Your task to perform on an android device: Go to display settings Image 0: 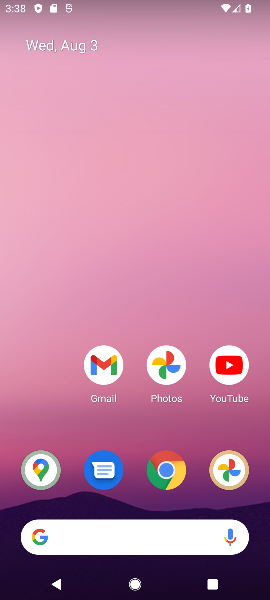
Step 0: press home button
Your task to perform on an android device: Go to display settings Image 1: 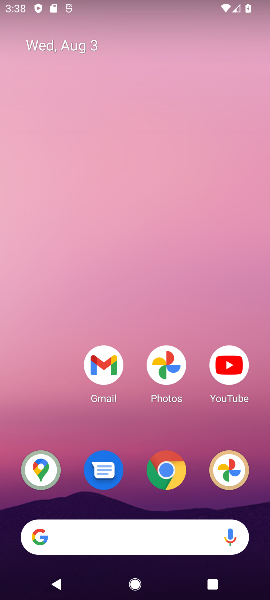
Step 1: drag from (202, 461) to (212, 69)
Your task to perform on an android device: Go to display settings Image 2: 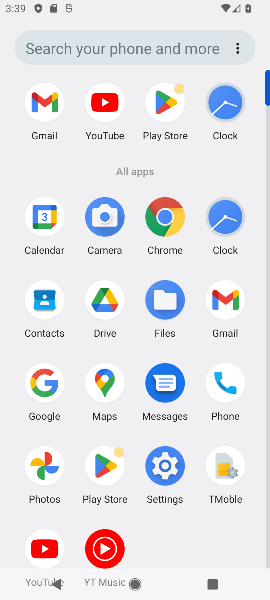
Step 2: click (174, 476)
Your task to perform on an android device: Go to display settings Image 3: 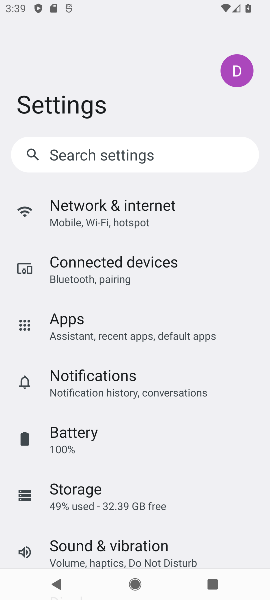
Step 3: drag from (120, 523) to (163, 229)
Your task to perform on an android device: Go to display settings Image 4: 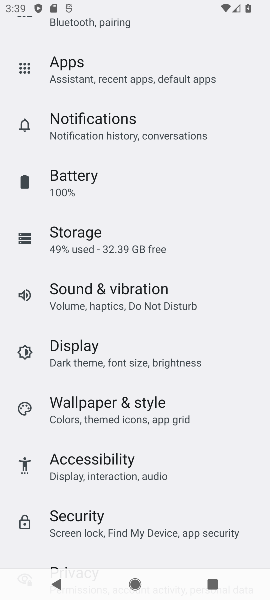
Step 4: click (123, 354)
Your task to perform on an android device: Go to display settings Image 5: 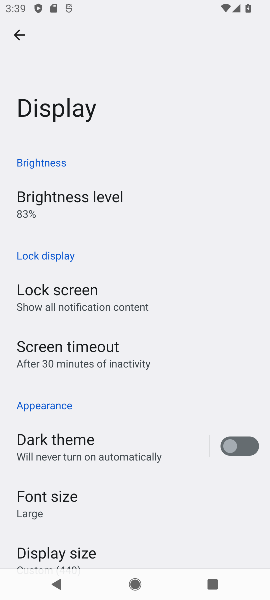
Step 5: task complete